Your task to perform on an android device: change the clock display to show seconds Image 0: 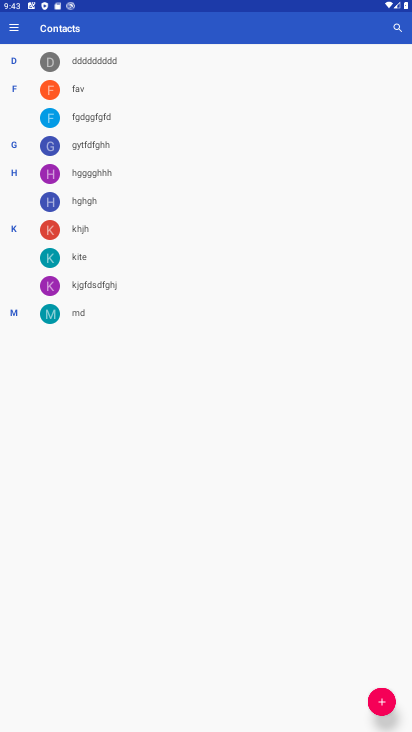
Step 0: press home button
Your task to perform on an android device: change the clock display to show seconds Image 1: 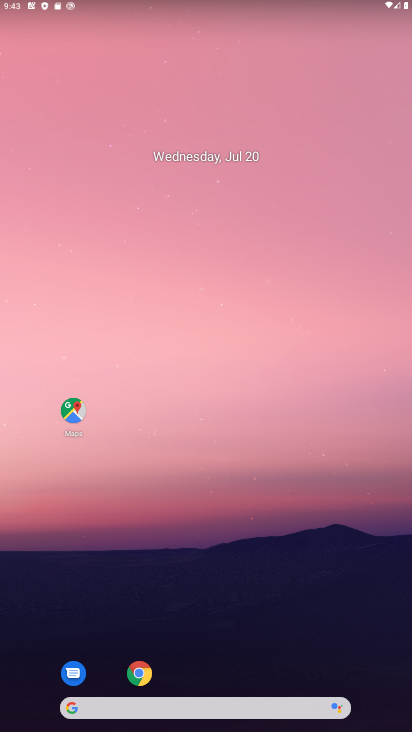
Step 1: drag from (207, 709) to (203, 122)
Your task to perform on an android device: change the clock display to show seconds Image 2: 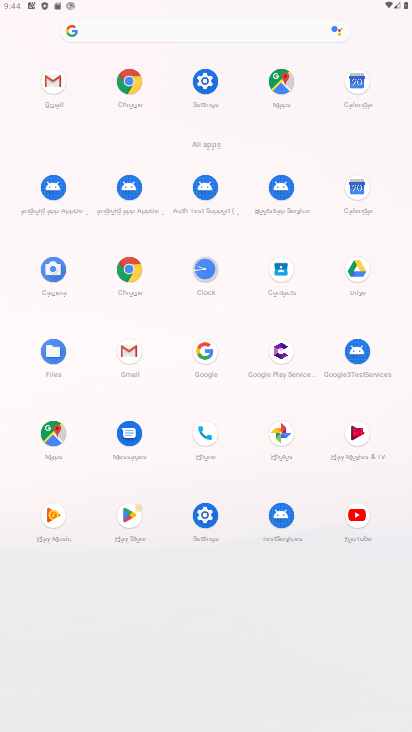
Step 2: click (206, 270)
Your task to perform on an android device: change the clock display to show seconds Image 3: 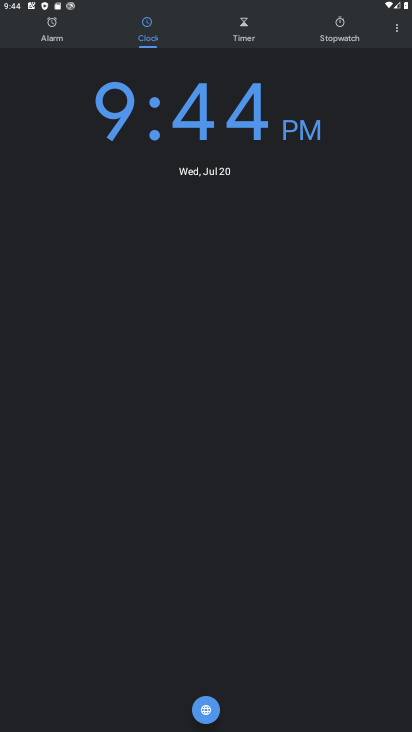
Step 3: click (398, 29)
Your task to perform on an android device: change the clock display to show seconds Image 4: 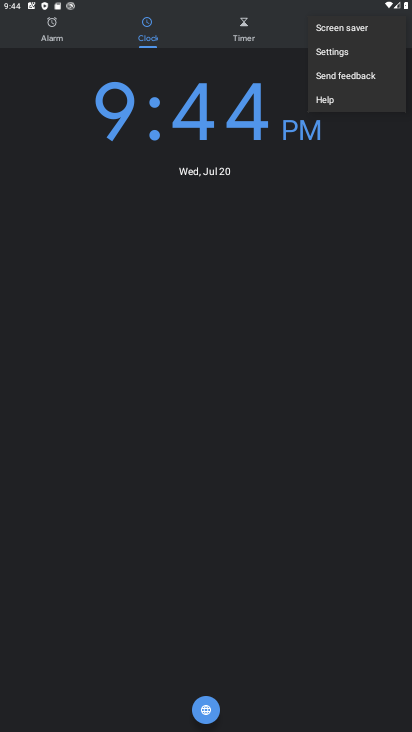
Step 4: click (339, 52)
Your task to perform on an android device: change the clock display to show seconds Image 5: 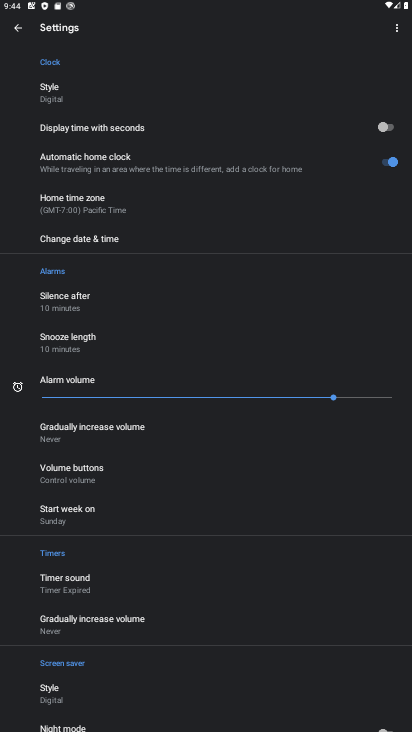
Step 5: click (386, 132)
Your task to perform on an android device: change the clock display to show seconds Image 6: 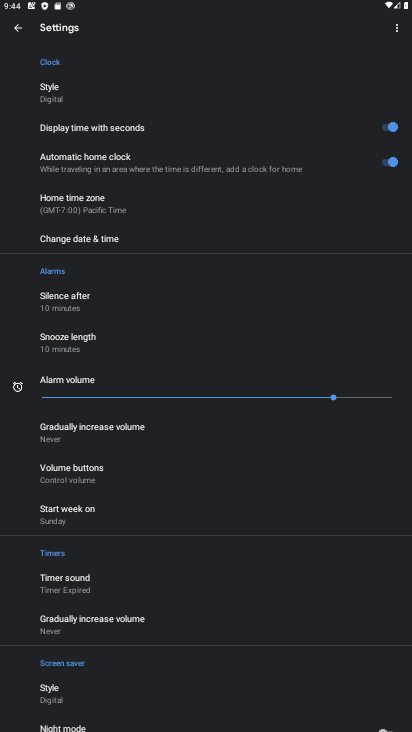
Step 6: task complete